Your task to perform on an android device: Open Google Chrome and click the shortcut for Amazon.com Image 0: 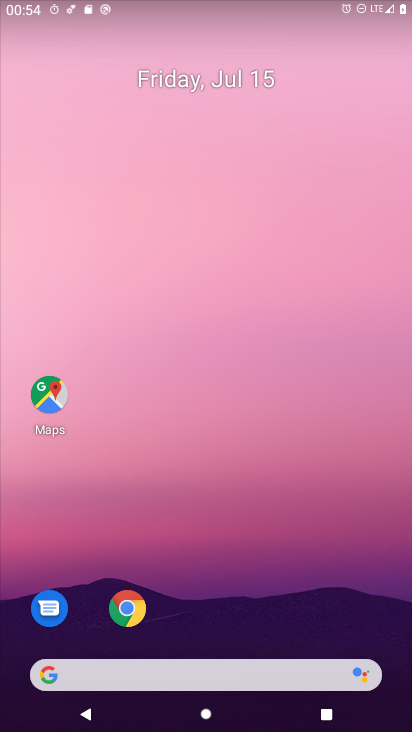
Step 0: drag from (335, 669) to (312, 59)
Your task to perform on an android device: Open Google Chrome and click the shortcut for Amazon.com Image 1: 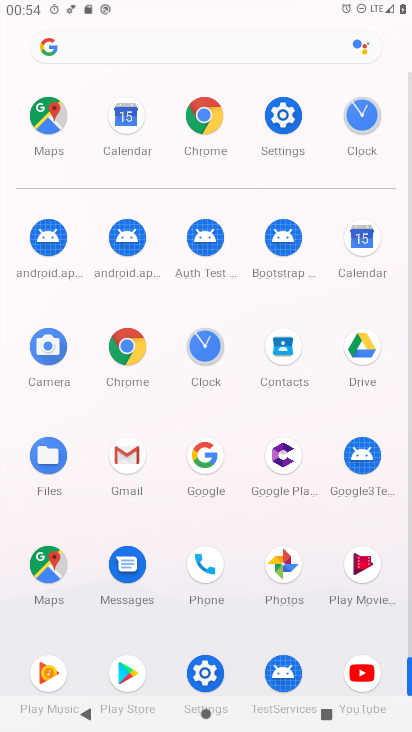
Step 1: click (118, 350)
Your task to perform on an android device: Open Google Chrome and click the shortcut for Amazon.com Image 2: 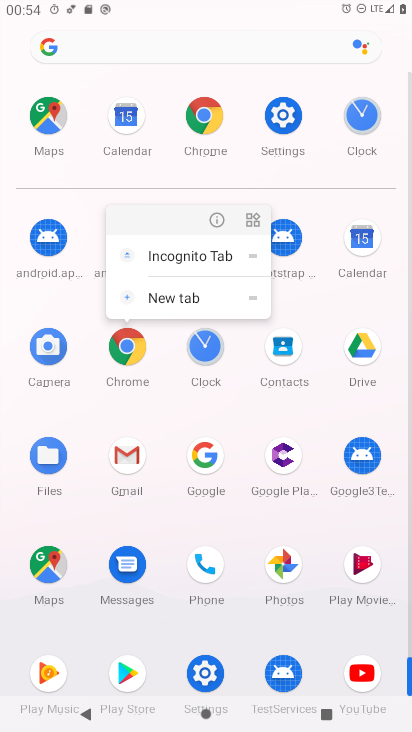
Step 2: click (130, 350)
Your task to perform on an android device: Open Google Chrome and click the shortcut for Amazon.com Image 3: 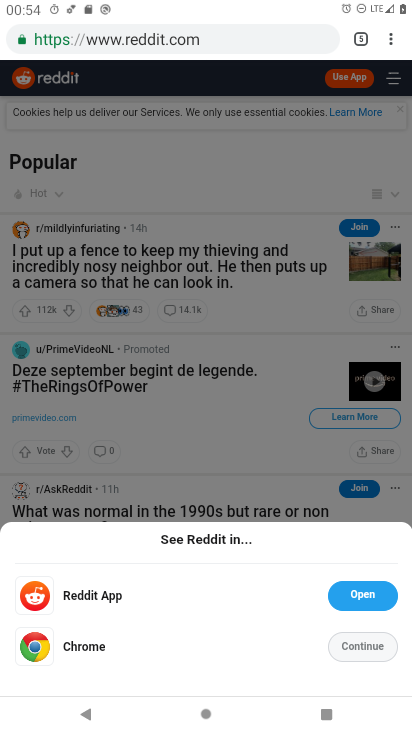
Step 3: drag from (391, 33) to (327, 73)
Your task to perform on an android device: Open Google Chrome and click the shortcut for Amazon.com Image 4: 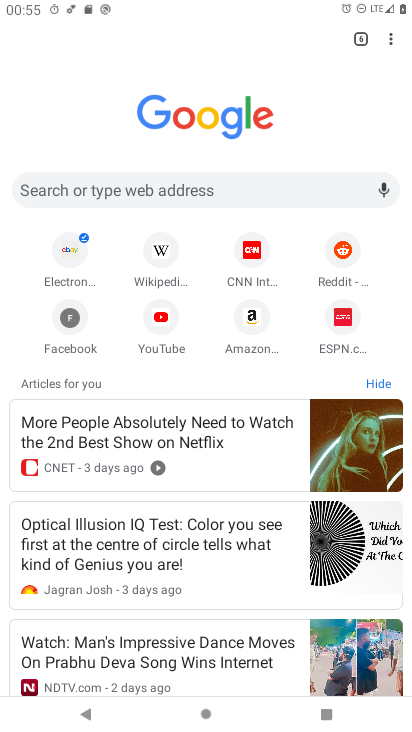
Step 4: click (258, 321)
Your task to perform on an android device: Open Google Chrome and click the shortcut for Amazon.com Image 5: 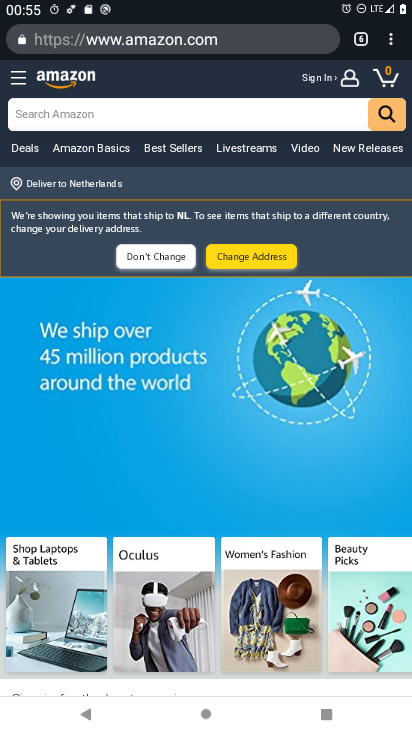
Step 5: drag from (394, 36) to (289, 400)
Your task to perform on an android device: Open Google Chrome and click the shortcut for Amazon.com Image 6: 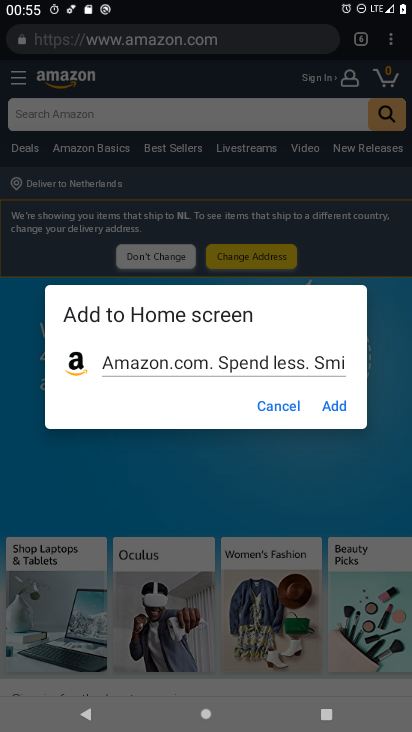
Step 6: click (332, 400)
Your task to perform on an android device: Open Google Chrome and click the shortcut for Amazon.com Image 7: 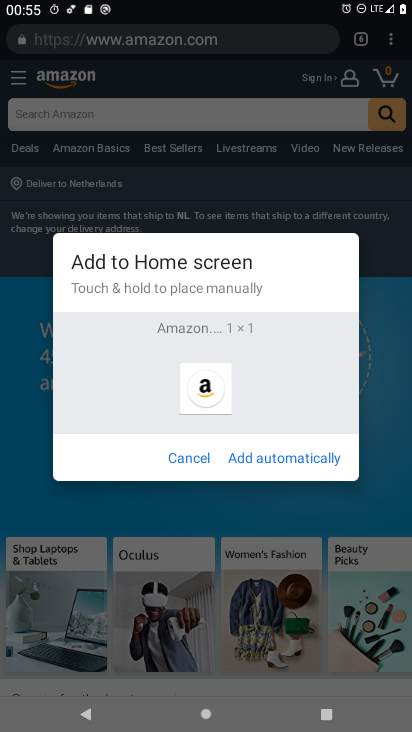
Step 7: click (320, 452)
Your task to perform on an android device: Open Google Chrome and click the shortcut for Amazon.com Image 8: 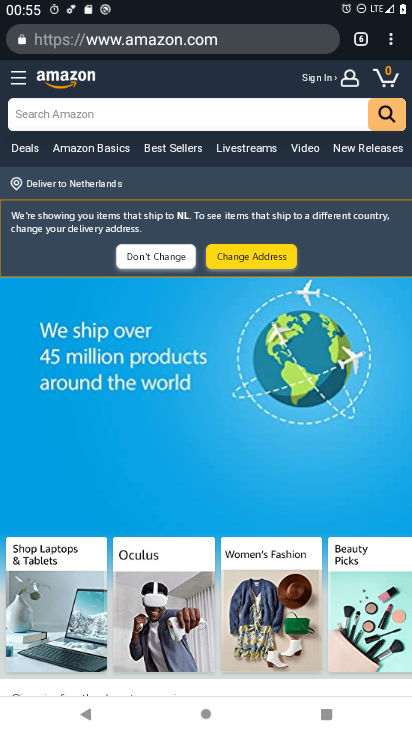
Step 8: task complete